Your task to perform on an android device: Open Chrome and go to settings Image 0: 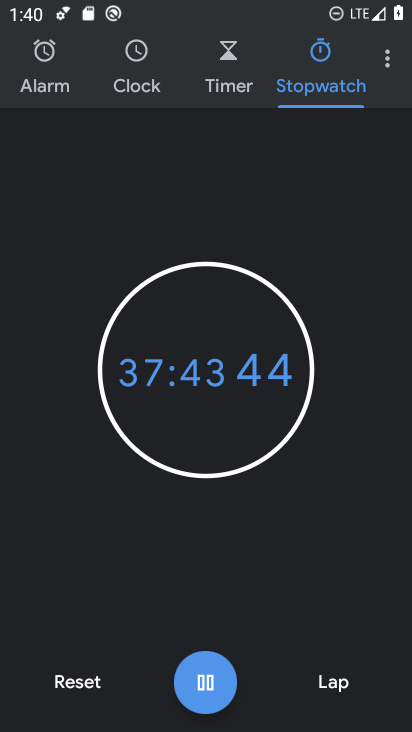
Step 0: press home button
Your task to perform on an android device: Open Chrome and go to settings Image 1: 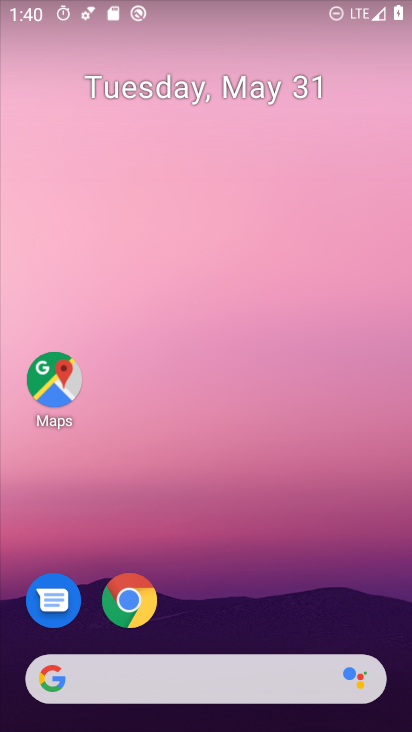
Step 1: click (130, 604)
Your task to perform on an android device: Open Chrome and go to settings Image 2: 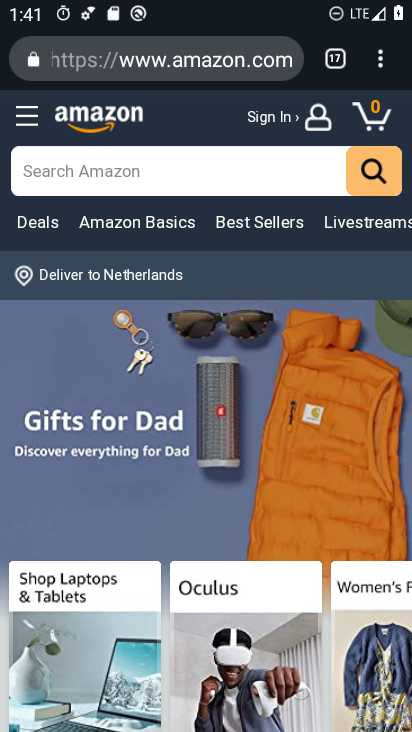
Step 2: click (382, 69)
Your task to perform on an android device: Open Chrome and go to settings Image 3: 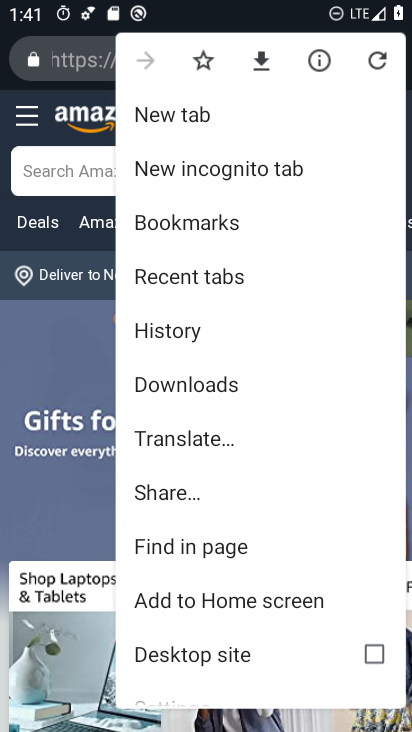
Step 3: drag from (243, 681) to (247, 259)
Your task to perform on an android device: Open Chrome and go to settings Image 4: 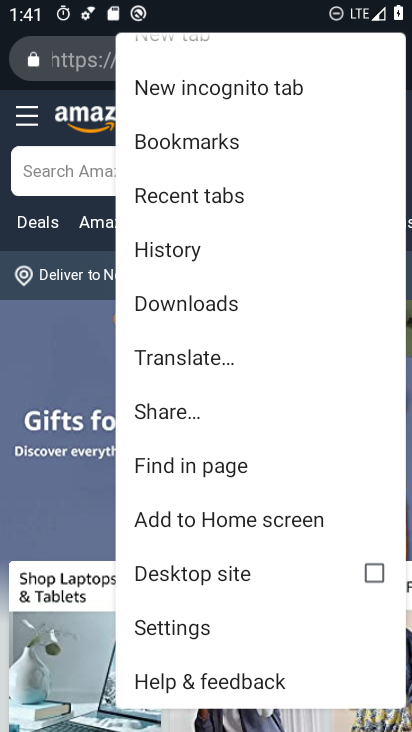
Step 4: click (186, 628)
Your task to perform on an android device: Open Chrome and go to settings Image 5: 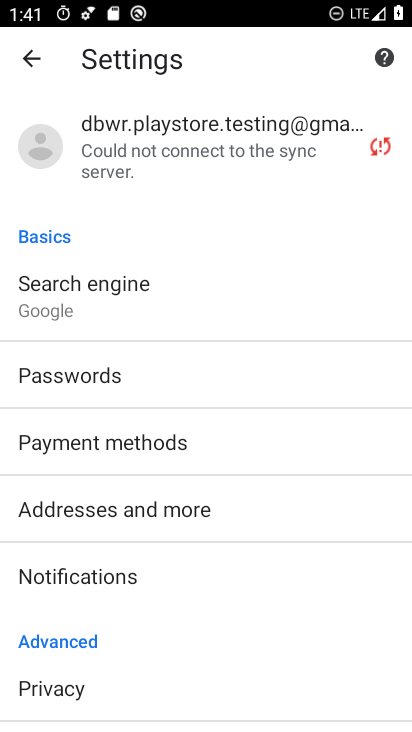
Step 5: task complete